Your task to perform on an android device: turn off priority inbox in the gmail app Image 0: 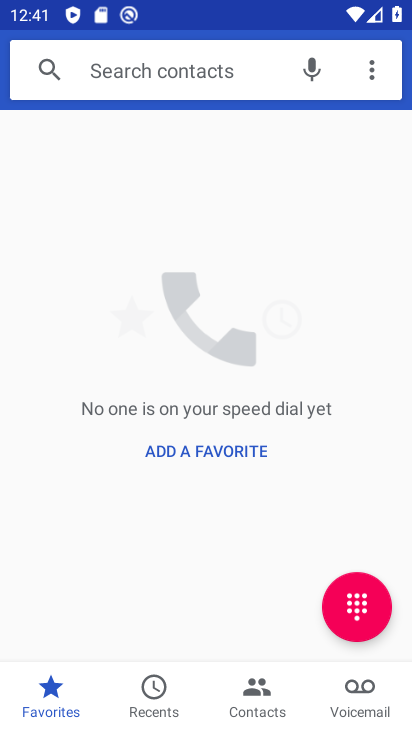
Step 0: press home button
Your task to perform on an android device: turn off priority inbox in the gmail app Image 1: 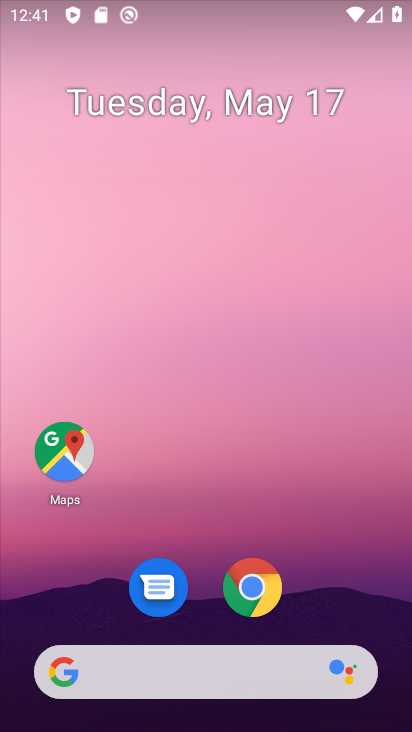
Step 1: drag from (84, 625) to (199, 14)
Your task to perform on an android device: turn off priority inbox in the gmail app Image 2: 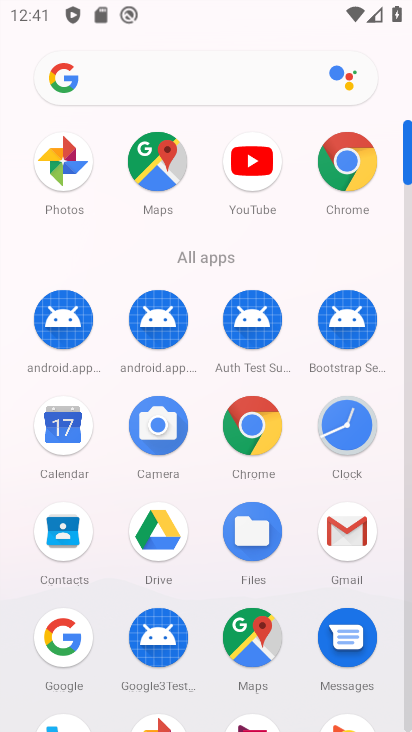
Step 2: click (342, 547)
Your task to perform on an android device: turn off priority inbox in the gmail app Image 3: 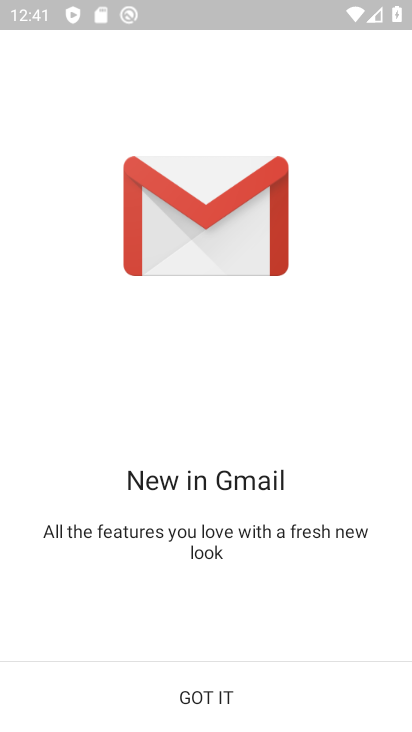
Step 3: click (245, 682)
Your task to perform on an android device: turn off priority inbox in the gmail app Image 4: 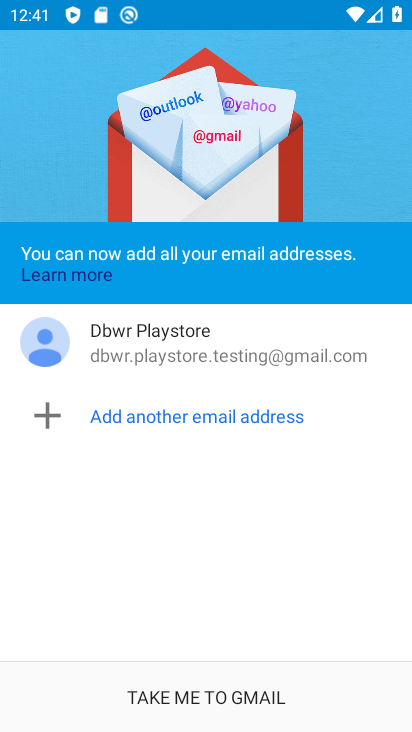
Step 4: click (245, 683)
Your task to perform on an android device: turn off priority inbox in the gmail app Image 5: 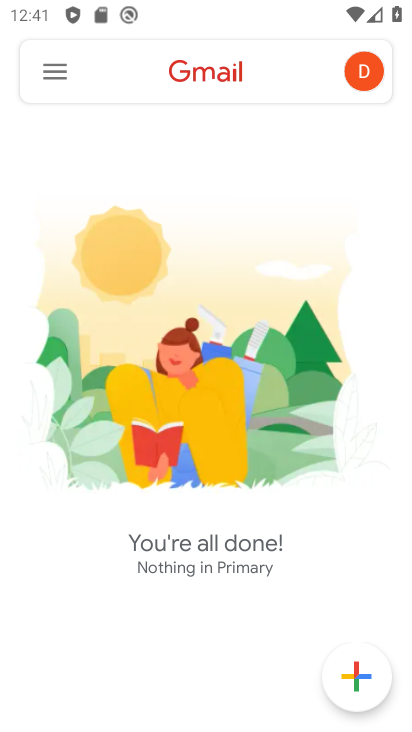
Step 5: click (59, 69)
Your task to perform on an android device: turn off priority inbox in the gmail app Image 6: 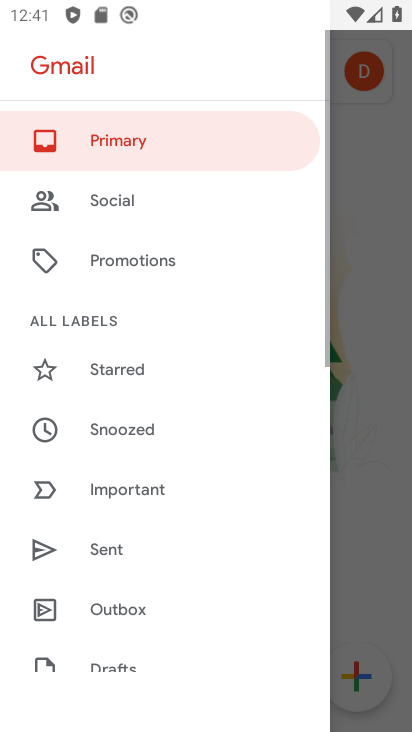
Step 6: drag from (155, 699) to (237, 197)
Your task to perform on an android device: turn off priority inbox in the gmail app Image 7: 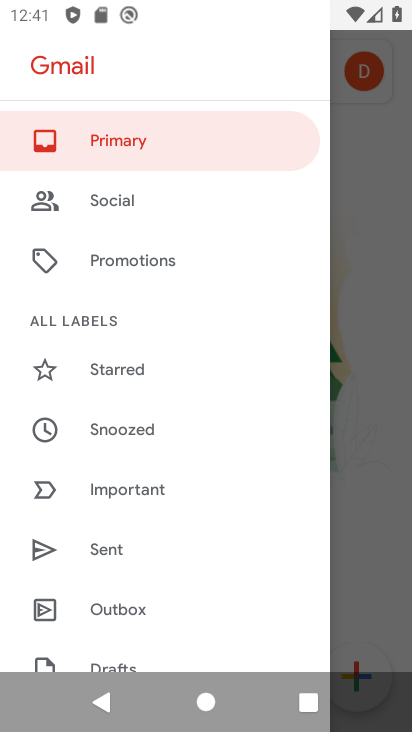
Step 7: drag from (149, 534) to (252, 36)
Your task to perform on an android device: turn off priority inbox in the gmail app Image 8: 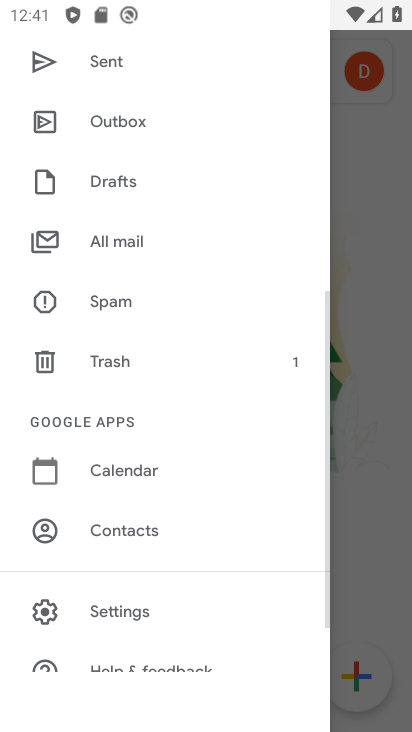
Step 8: drag from (145, 597) to (239, 289)
Your task to perform on an android device: turn off priority inbox in the gmail app Image 9: 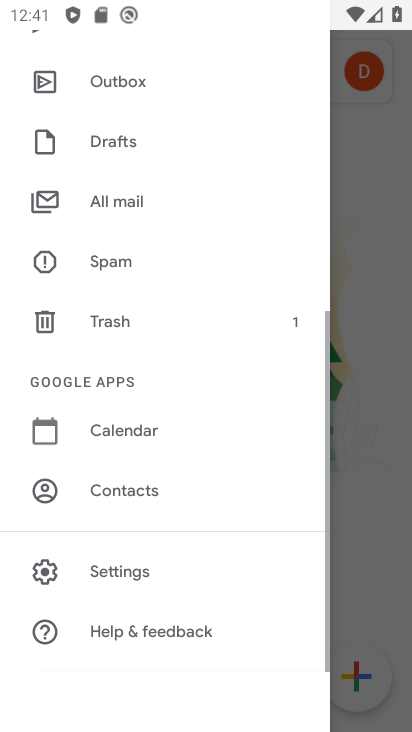
Step 9: click (139, 572)
Your task to perform on an android device: turn off priority inbox in the gmail app Image 10: 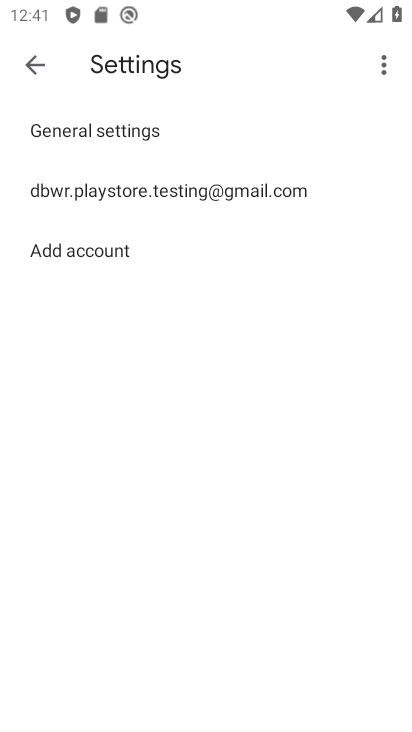
Step 10: click (199, 193)
Your task to perform on an android device: turn off priority inbox in the gmail app Image 11: 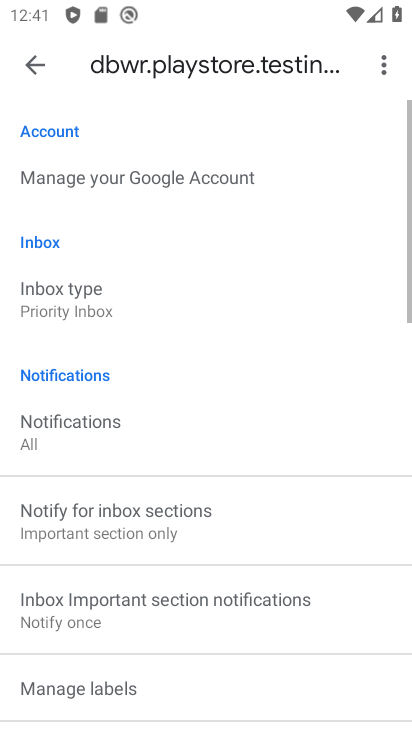
Step 11: click (133, 301)
Your task to perform on an android device: turn off priority inbox in the gmail app Image 12: 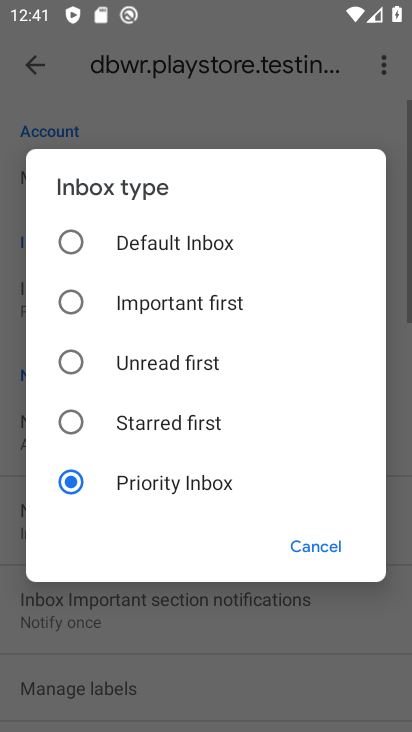
Step 12: click (175, 253)
Your task to perform on an android device: turn off priority inbox in the gmail app Image 13: 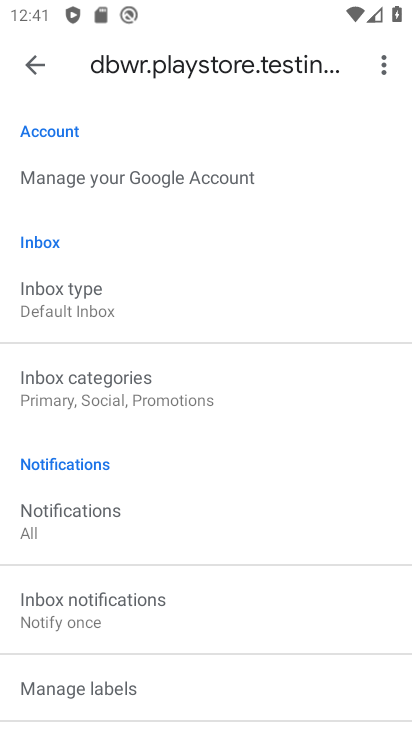
Step 13: task complete